Your task to perform on an android device: Open the calendar and show me this week's events? Image 0: 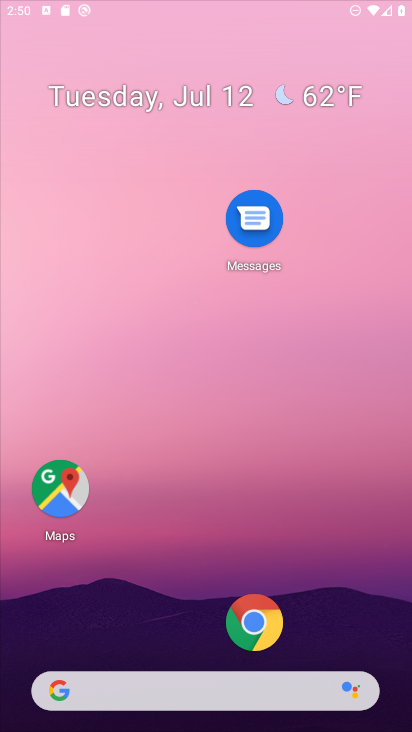
Step 0: press home button
Your task to perform on an android device: Open the calendar and show me this week's events? Image 1: 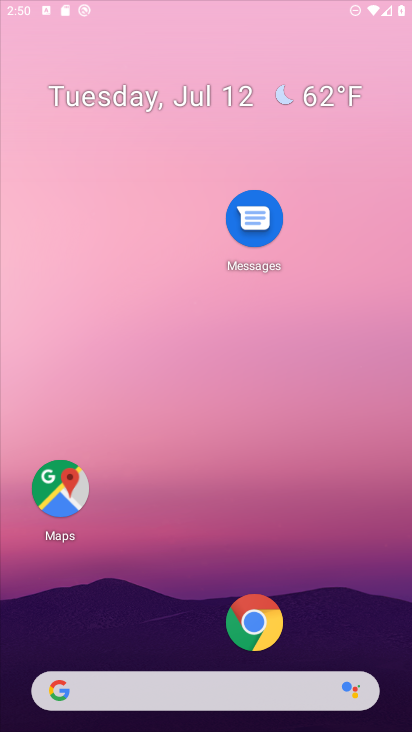
Step 1: drag from (197, 646) to (221, 117)
Your task to perform on an android device: Open the calendar and show me this week's events? Image 2: 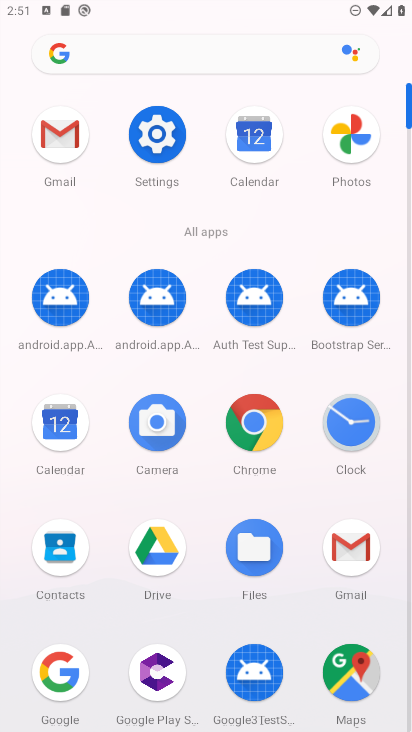
Step 2: click (252, 132)
Your task to perform on an android device: Open the calendar and show me this week's events? Image 3: 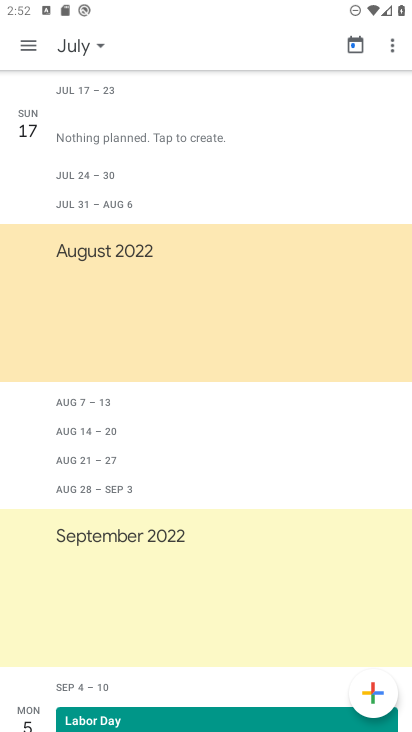
Step 3: click (27, 47)
Your task to perform on an android device: Open the calendar and show me this week's events? Image 4: 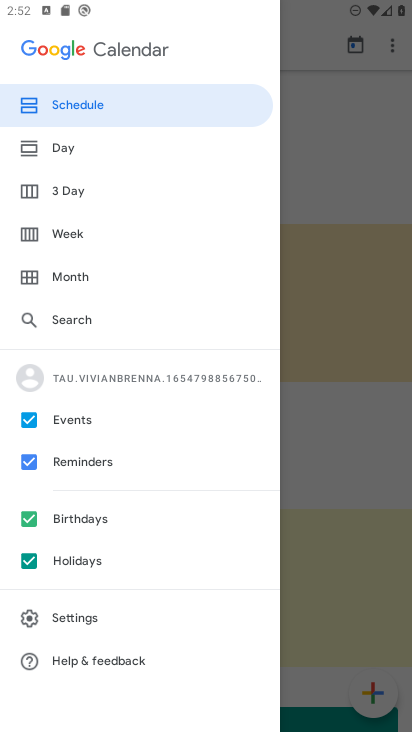
Step 4: click (59, 232)
Your task to perform on an android device: Open the calendar and show me this week's events? Image 5: 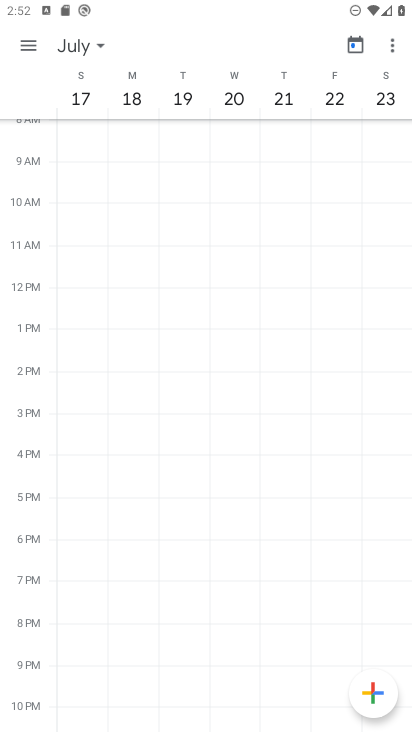
Step 5: task complete